Your task to perform on an android device: Show me popular videos on Youtube Image 0: 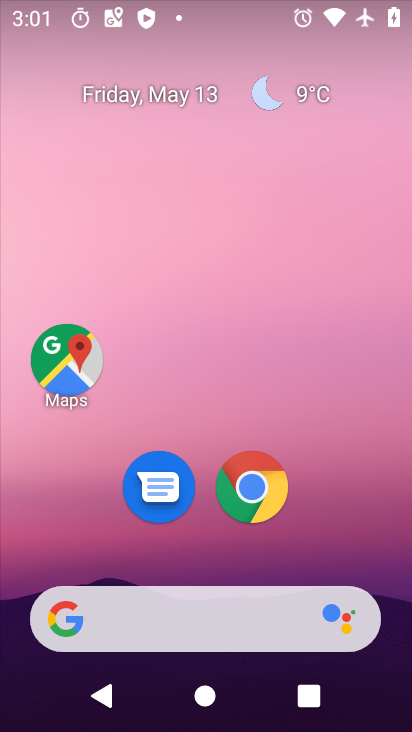
Step 0: drag from (217, 561) to (204, 121)
Your task to perform on an android device: Show me popular videos on Youtube Image 1: 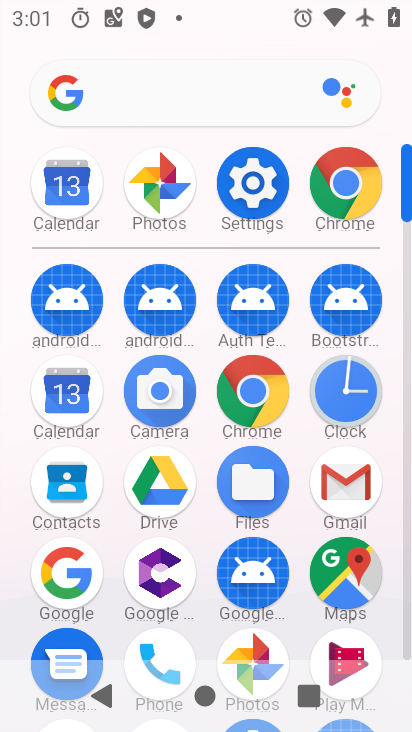
Step 1: drag from (212, 613) to (203, 87)
Your task to perform on an android device: Show me popular videos on Youtube Image 2: 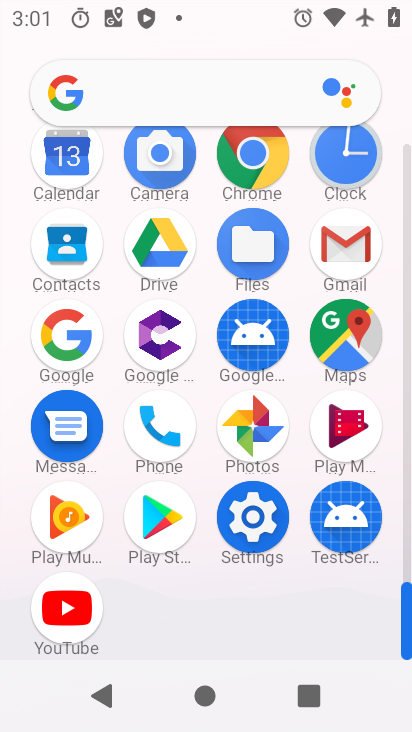
Step 2: click (53, 609)
Your task to perform on an android device: Show me popular videos on Youtube Image 3: 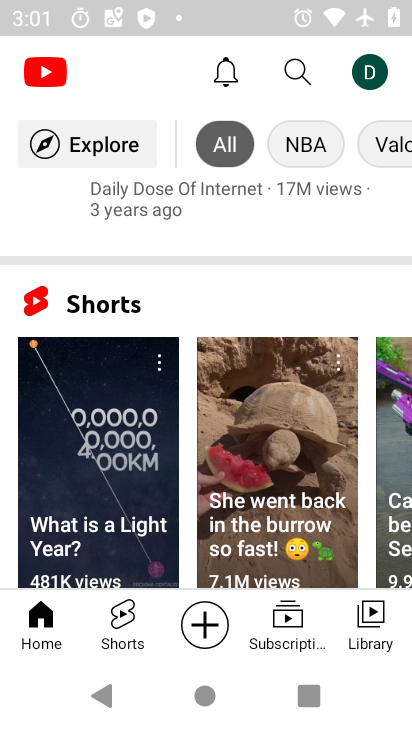
Step 3: task complete